Your task to perform on an android device: What's the weather? Image 0: 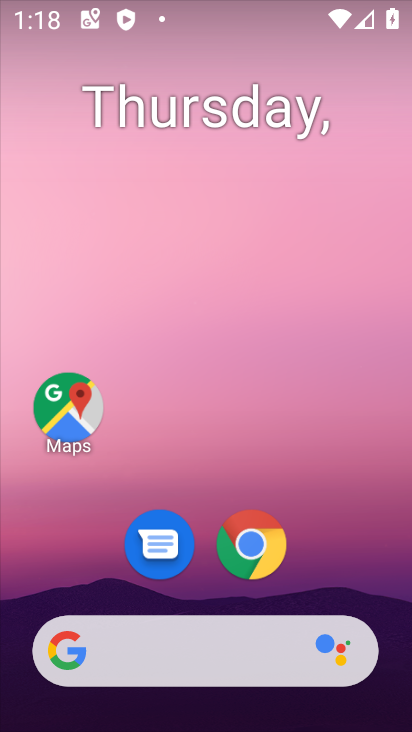
Step 0: drag from (221, 714) to (212, 2)
Your task to perform on an android device: What's the weather? Image 1: 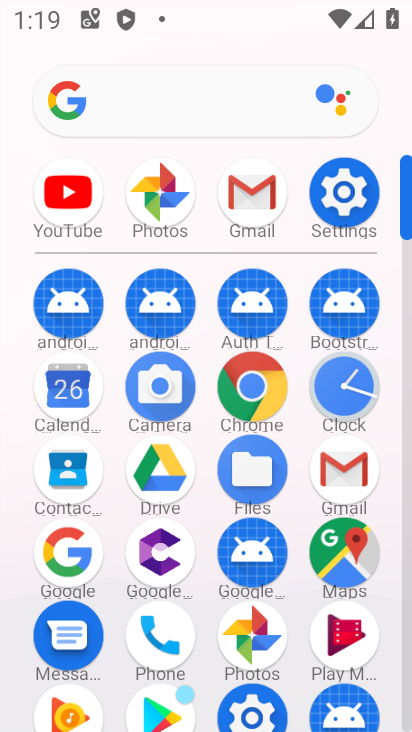
Step 1: click (67, 551)
Your task to perform on an android device: What's the weather? Image 2: 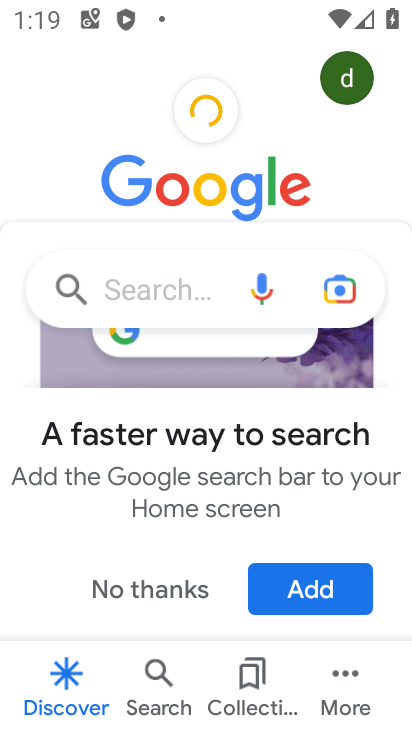
Step 2: click (183, 278)
Your task to perform on an android device: What's the weather? Image 3: 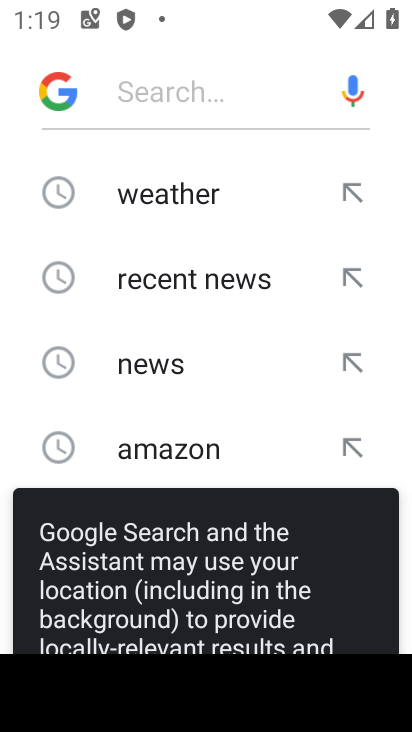
Step 3: click (157, 185)
Your task to perform on an android device: What's the weather? Image 4: 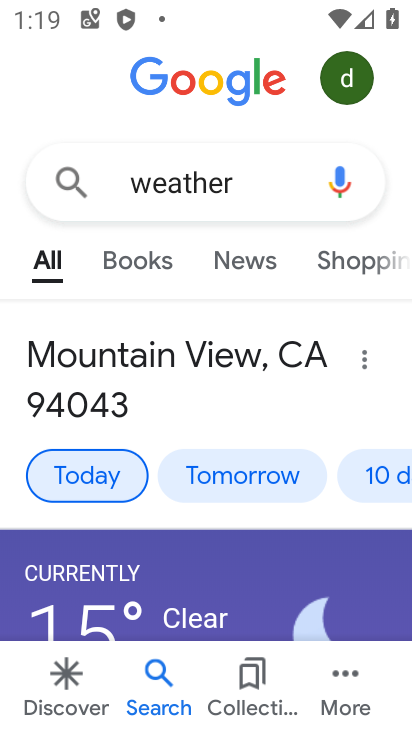
Step 4: click (82, 478)
Your task to perform on an android device: What's the weather? Image 5: 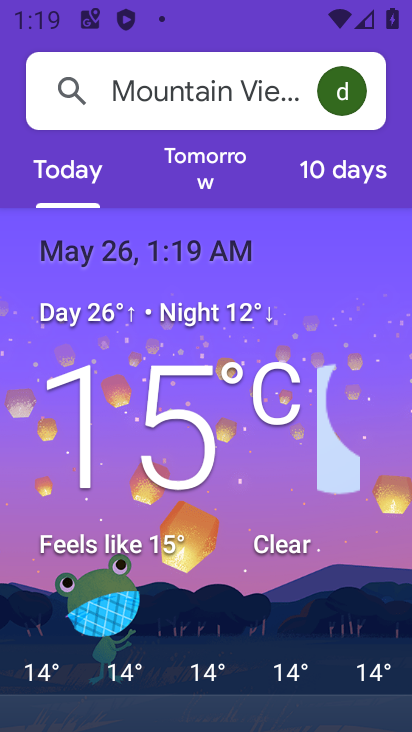
Step 5: task complete